Your task to perform on an android device: Open Wikipedia Image 0: 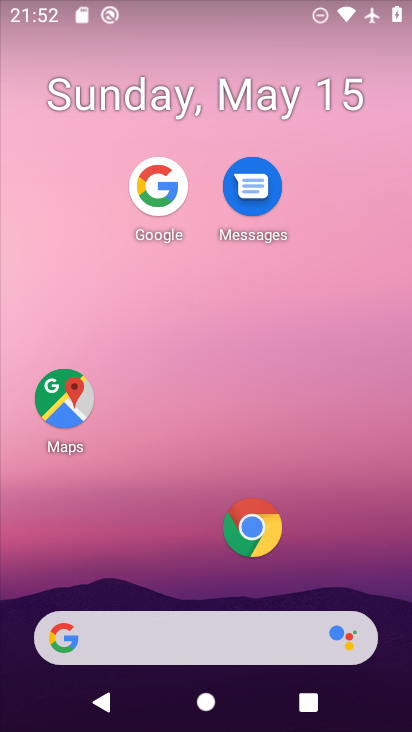
Step 0: click (260, 552)
Your task to perform on an android device: Open Wikipedia Image 1: 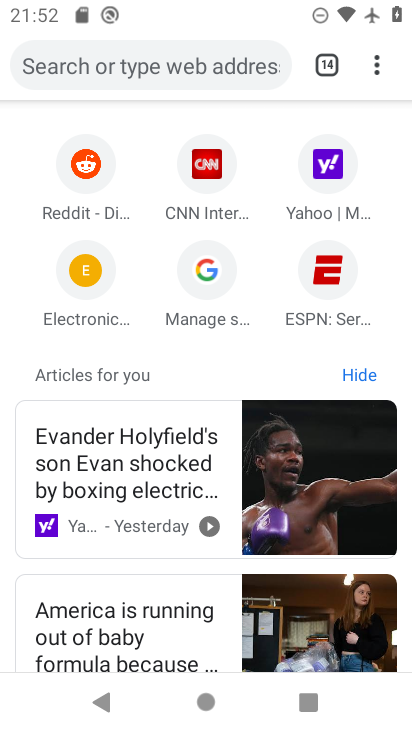
Step 1: drag from (205, 345) to (141, 541)
Your task to perform on an android device: Open Wikipedia Image 2: 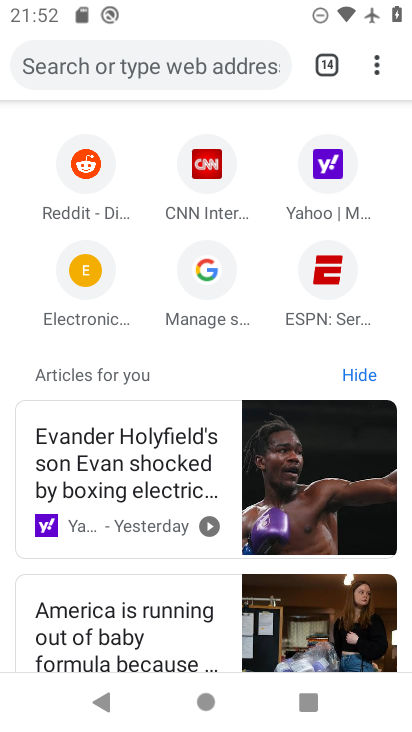
Step 2: drag from (155, 131) to (143, 424)
Your task to perform on an android device: Open Wikipedia Image 3: 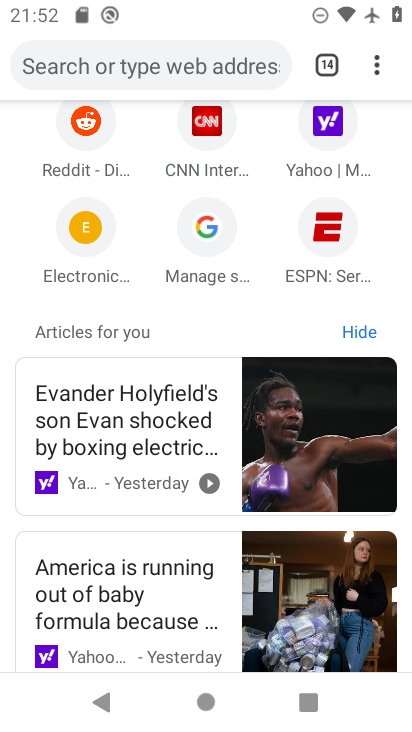
Step 3: click (121, 66)
Your task to perform on an android device: Open Wikipedia Image 4: 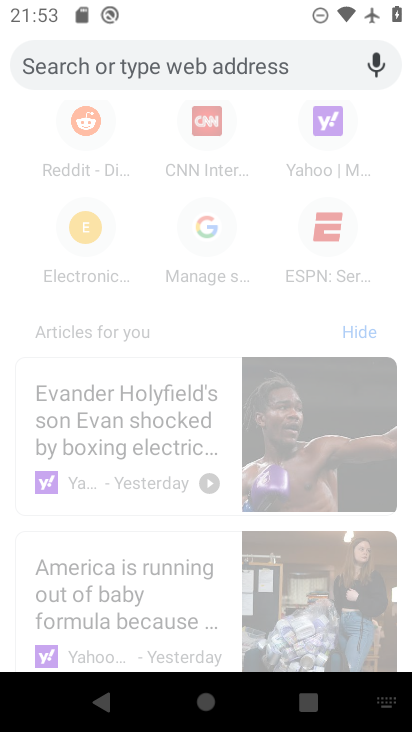
Step 4: type "wikipedia"
Your task to perform on an android device: Open Wikipedia Image 5: 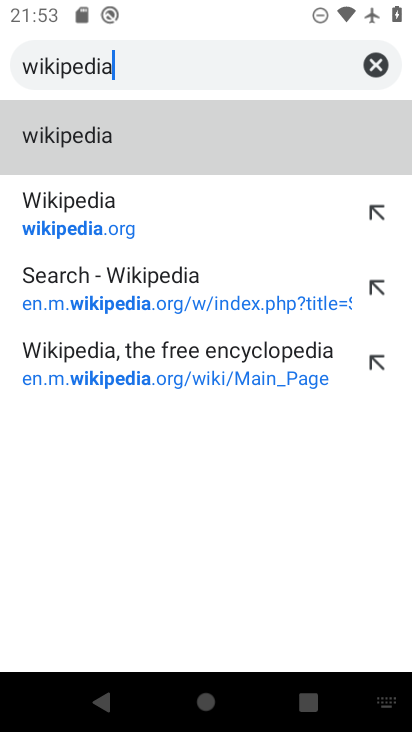
Step 5: click (106, 146)
Your task to perform on an android device: Open Wikipedia Image 6: 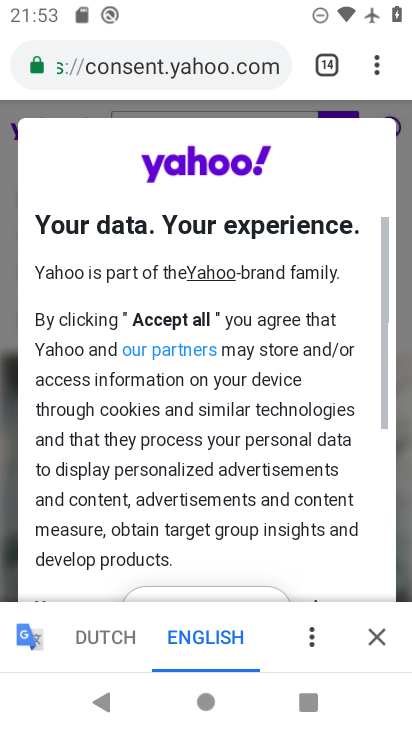
Step 6: drag from (246, 529) to (351, 231)
Your task to perform on an android device: Open Wikipedia Image 7: 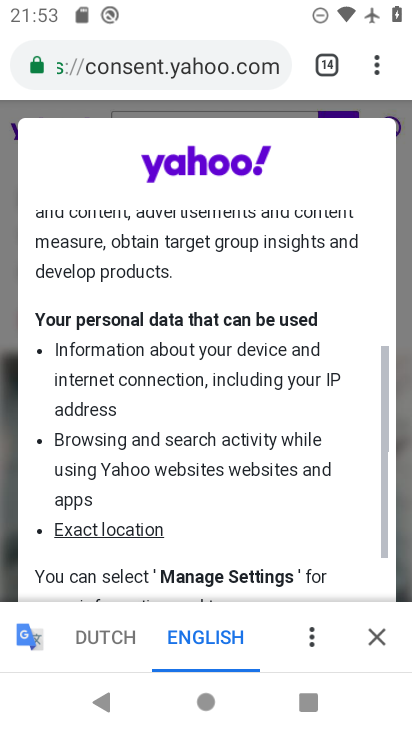
Step 7: drag from (280, 550) to (404, 180)
Your task to perform on an android device: Open Wikipedia Image 8: 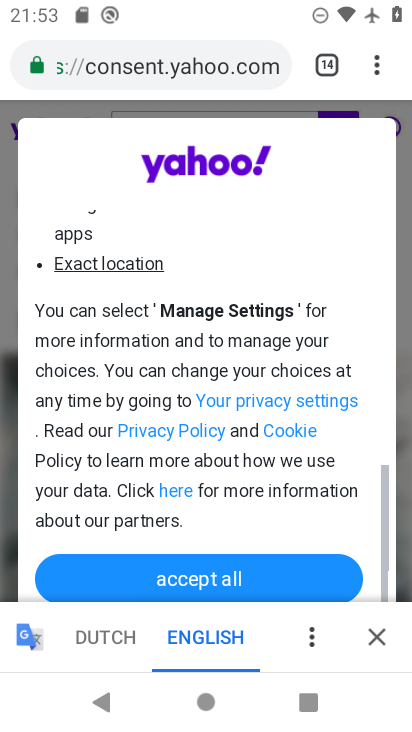
Step 8: click (236, 584)
Your task to perform on an android device: Open Wikipedia Image 9: 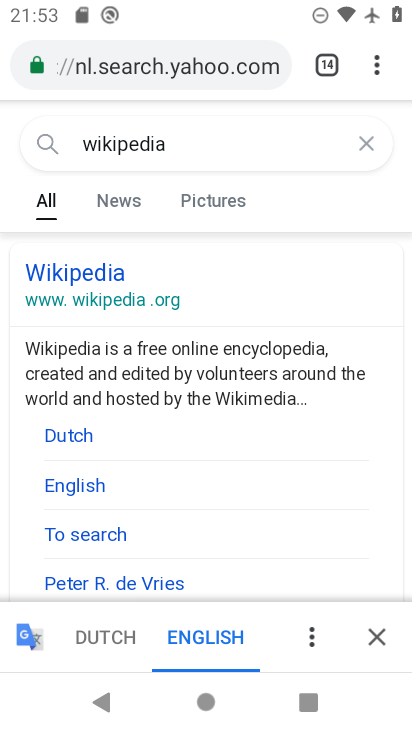
Step 9: click (91, 287)
Your task to perform on an android device: Open Wikipedia Image 10: 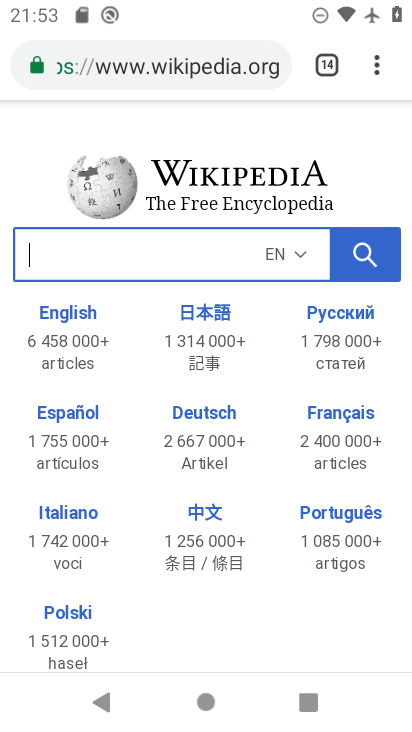
Step 10: task complete